Your task to perform on an android device: turn on showing notifications on the lock screen Image 0: 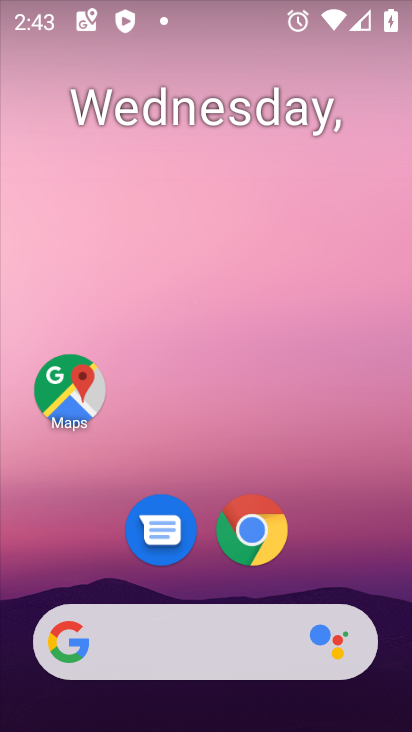
Step 0: drag from (187, 622) to (346, 111)
Your task to perform on an android device: turn on showing notifications on the lock screen Image 1: 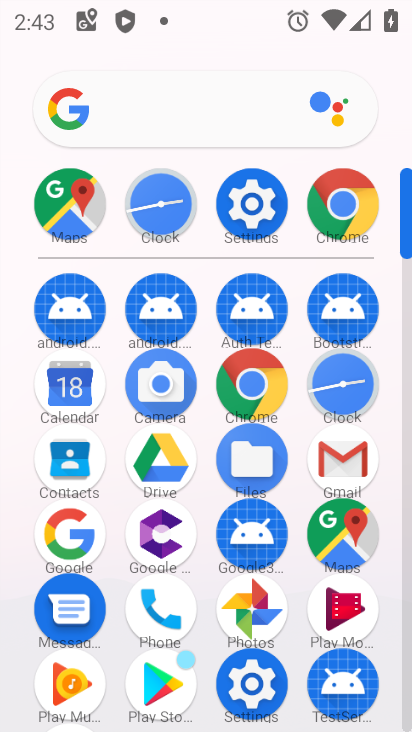
Step 1: click (261, 216)
Your task to perform on an android device: turn on showing notifications on the lock screen Image 2: 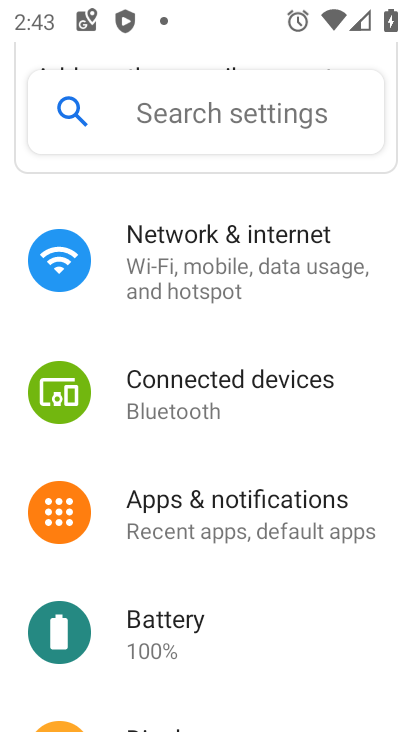
Step 2: click (259, 490)
Your task to perform on an android device: turn on showing notifications on the lock screen Image 3: 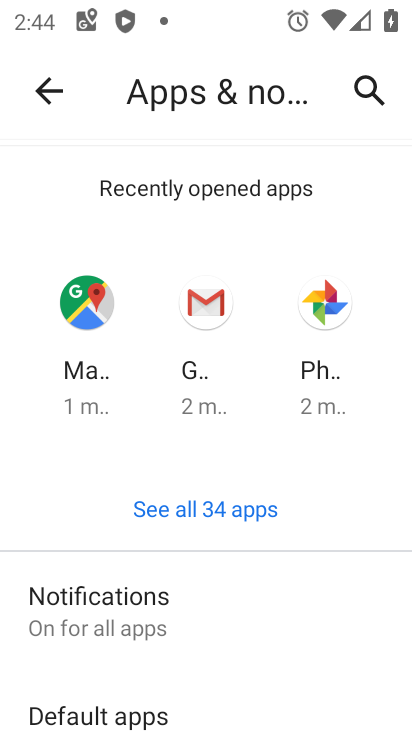
Step 3: click (148, 626)
Your task to perform on an android device: turn on showing notifications on the lock screen Image 4: 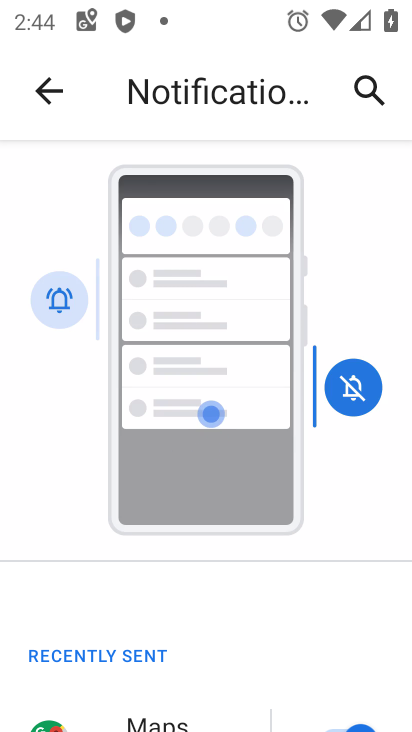
Step 4: drag from (126, 642) to (66, 39)
Your task to perform on an android device: turn on showing notifications on the lock screen Image 5: 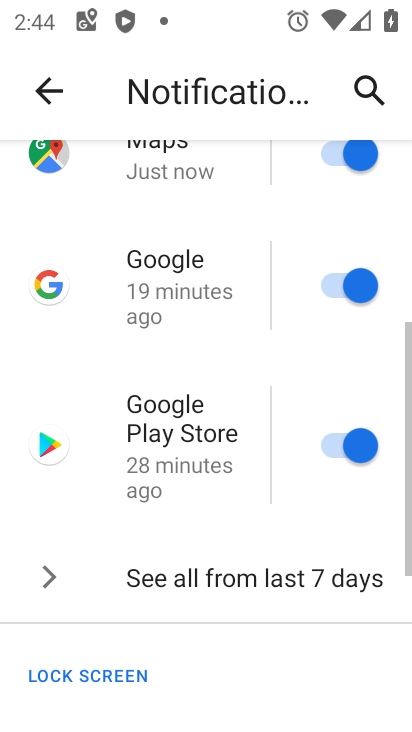
Step 5: drag from (223, 600) to (167, 9)
Your task to perform on an android device: turn on showing notifications on the lock screen Image 6: 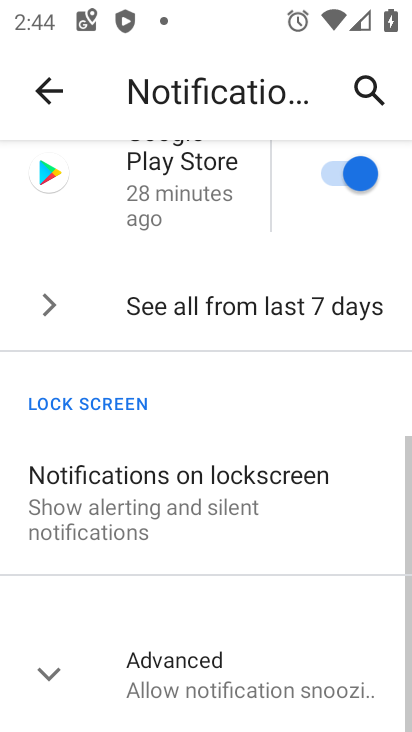
Step 6: click (241, 576)
Your task to perform on an android device: turn on showing notifications on the lock screen Image 7: 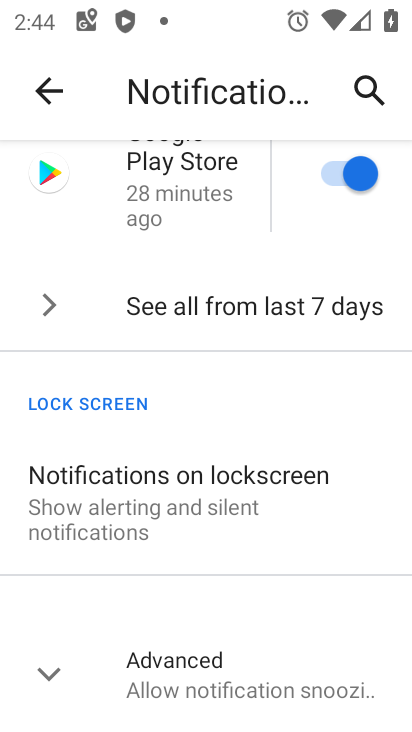
Step 7: click (199, 495)
Your task to perform on an android device: turn on showing notifications on the lock screen Image 8: 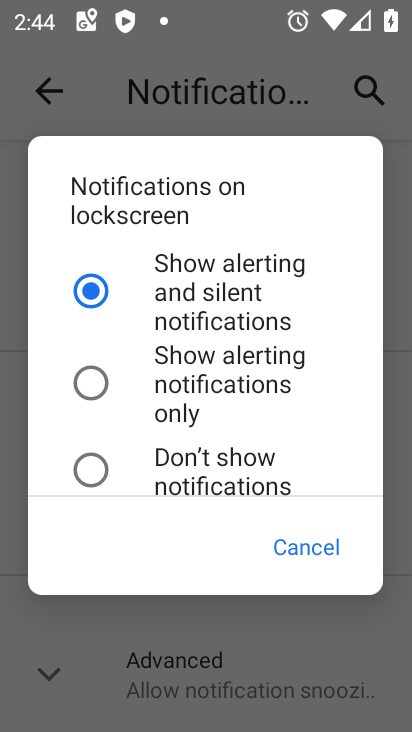
Step 8: click (174, 284)
Your task to perform on an android device: turn on showing notifications on the lock screen Image 9: 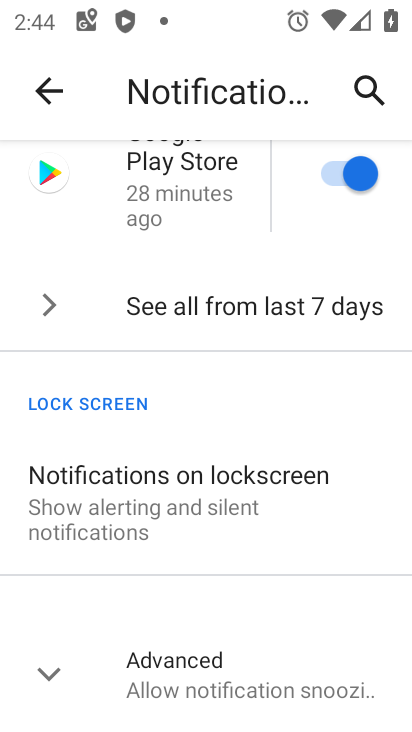
Step 9: task complete